Your task to perform on an android device: Go to Reddit.com Image 0: 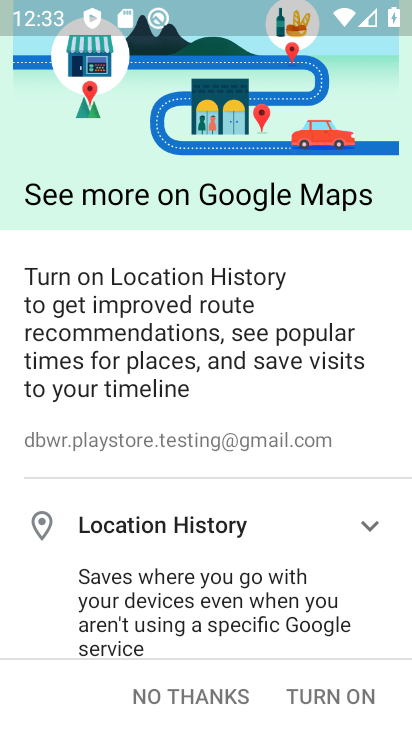
Step 0: press home button
Your task to perform on an android device: Go to Reddit.com Image 1: 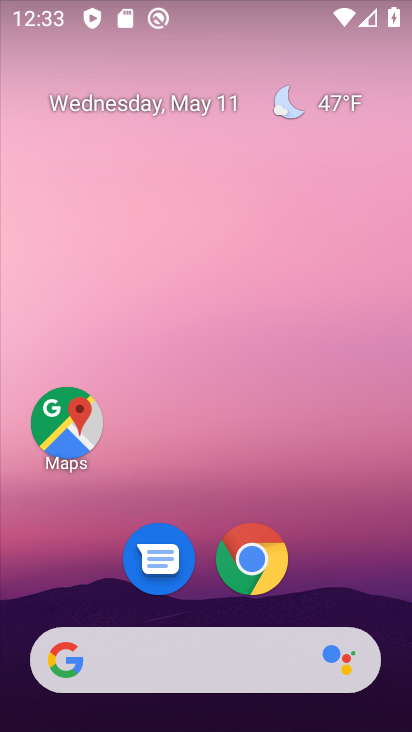
Step 1: click (262, 575)
Your task to perform on an android device: Go to Reddit.com Image 2: 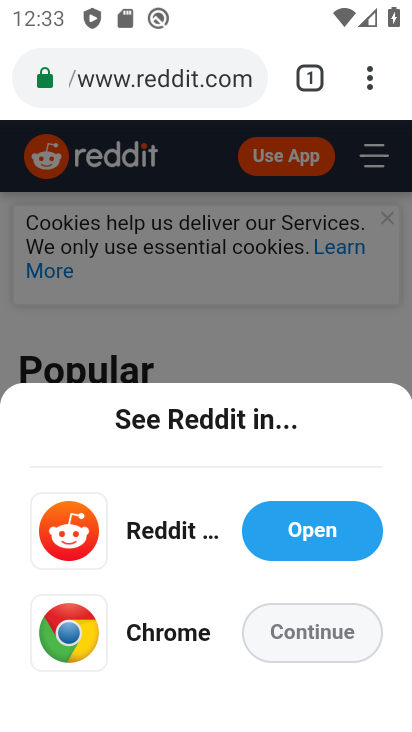
Step 2: click (310, 635)
Your task to perform on an android device: Go to Reddit.com Image 3: 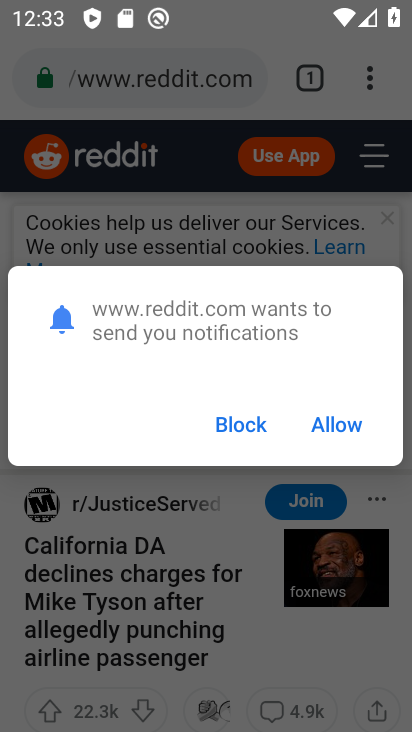
Step 3: click (258, 424)
Your task to perform on an android device: Go to Reddit.com Image 4: 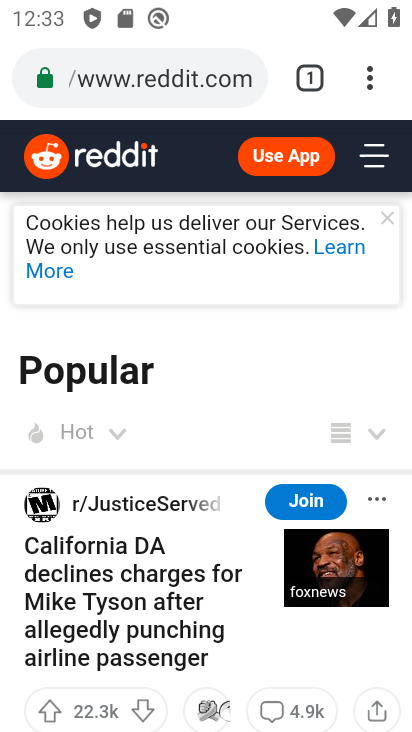
Step 4: task complete